Your task to perform on an android device: toggle airplane mode Image 0: 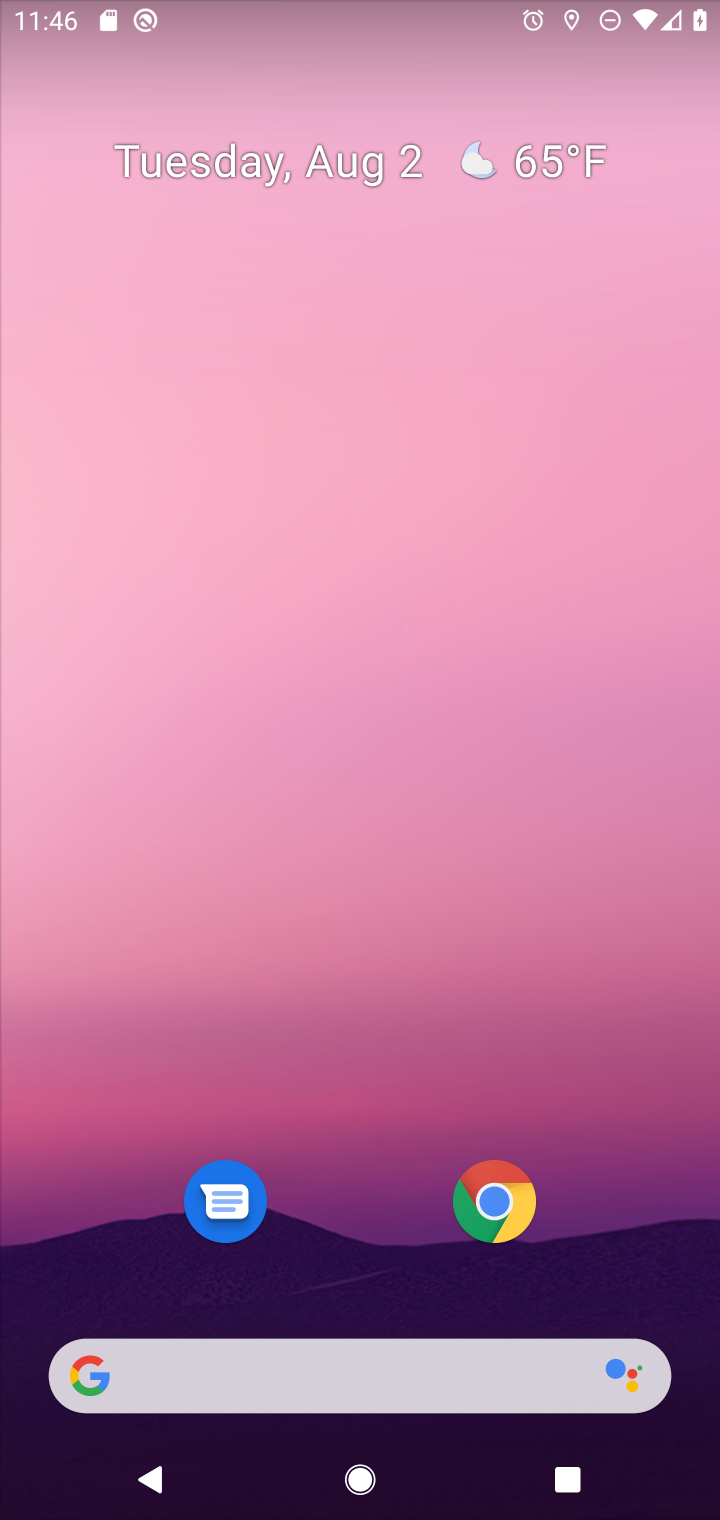
Step 0: press back button
Your task to perform on an android device: toggle airplane mode Image 1: 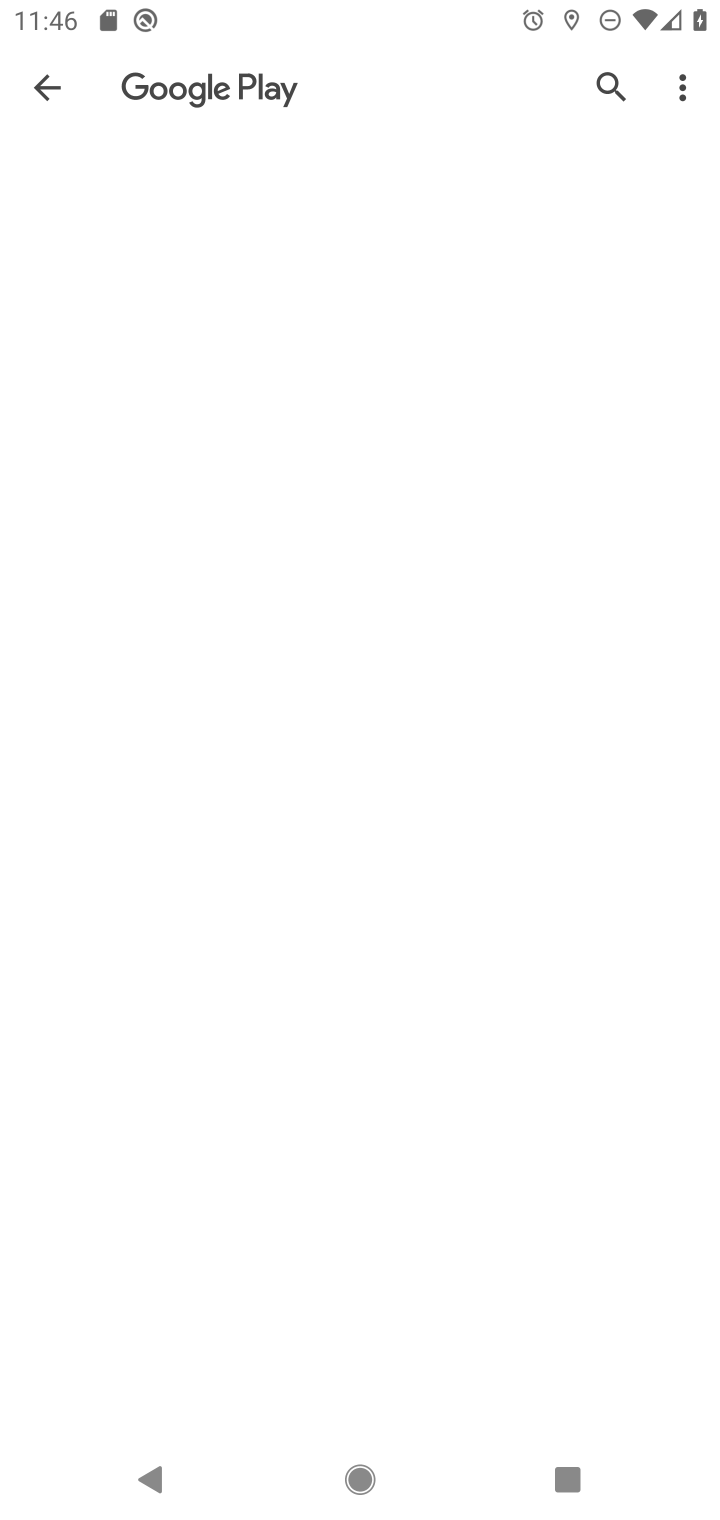
Step 1: drag from (303, 1354) to (223, 166)
Your task to perform on an android device: toggle airplane mode Image 2: 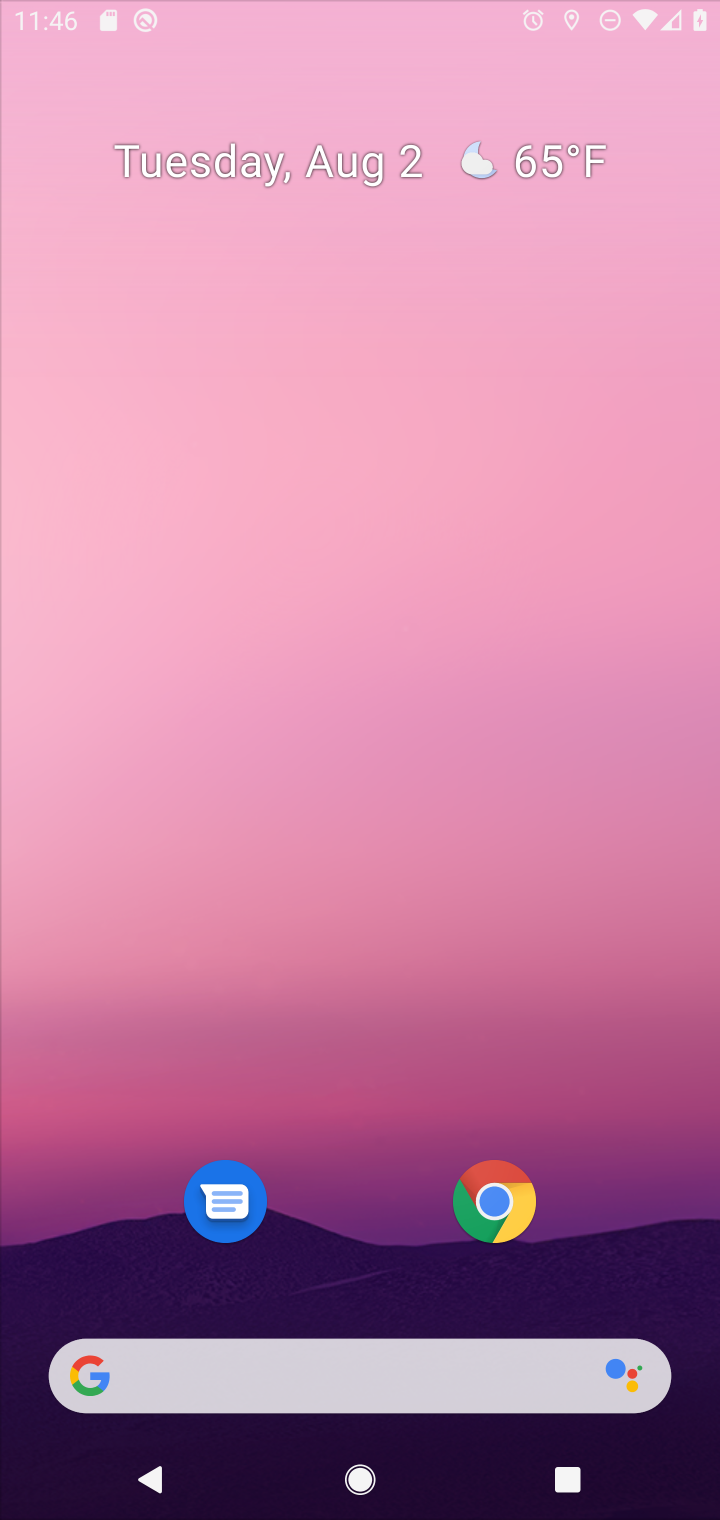
Step 2: press back button
Your task to perform on an android device: toggle airplane mode Image 3: 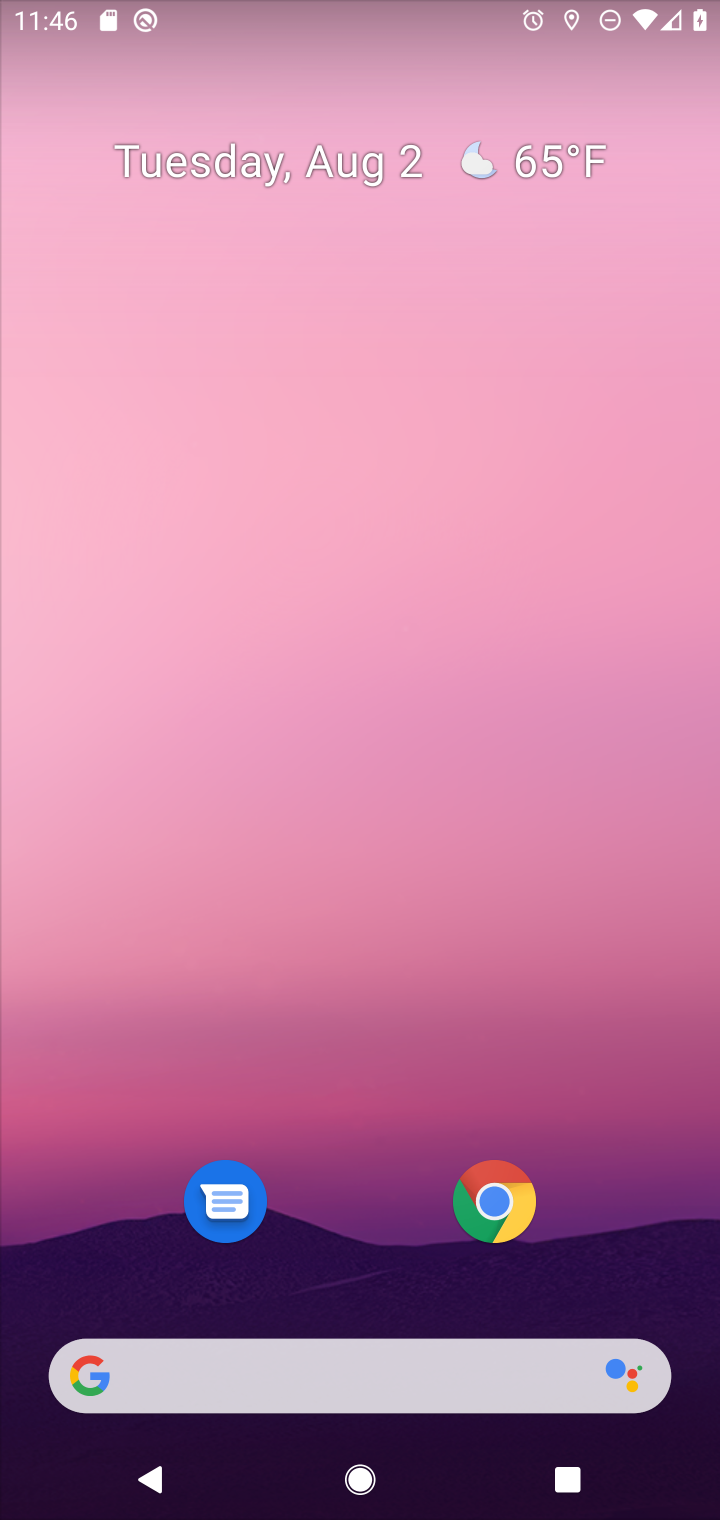
Step 3: drag from (408, 1240) to (498, 185)
Your task to perform on an android device: toggle airplane mode Image 4: 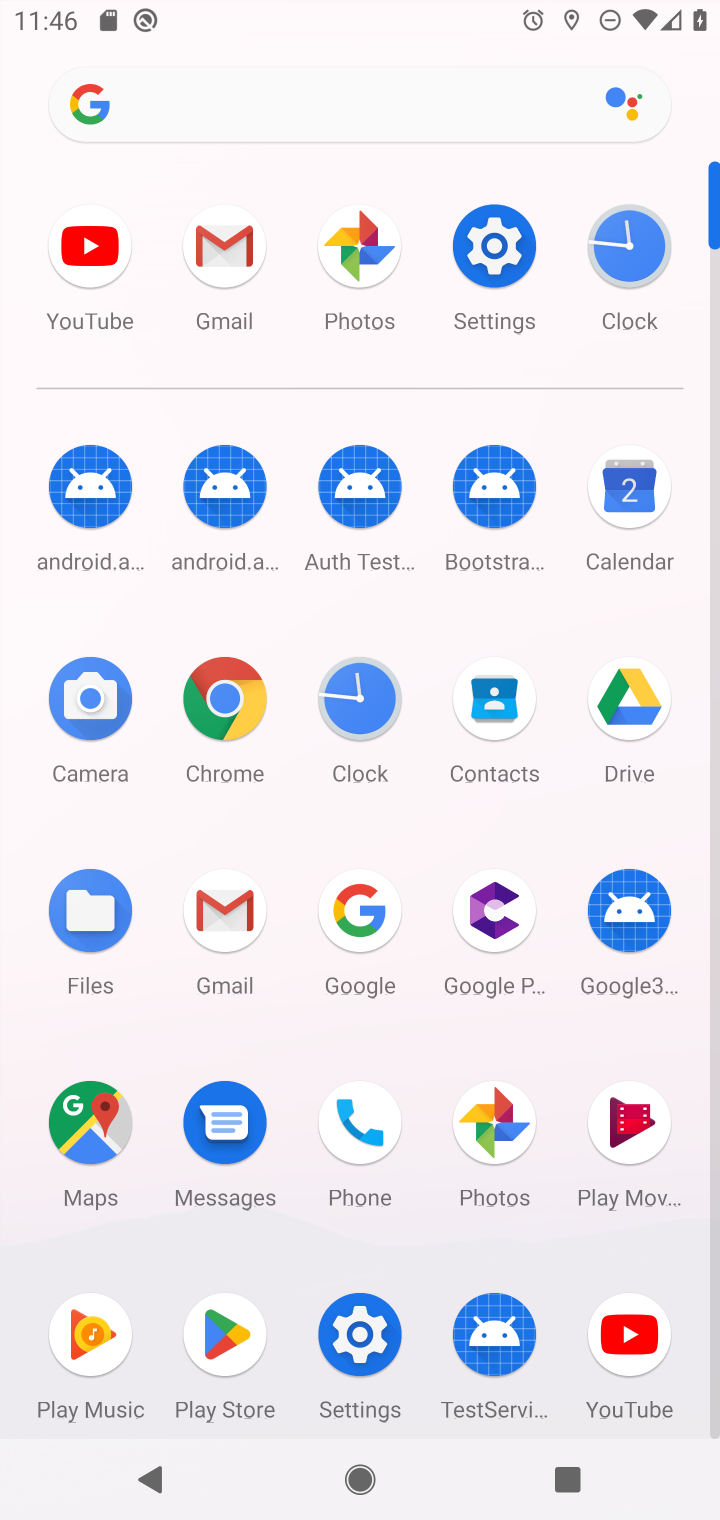
Step 4: click (531, 247)
Your task to perform on an android device: toggle airplane mode Image 5: 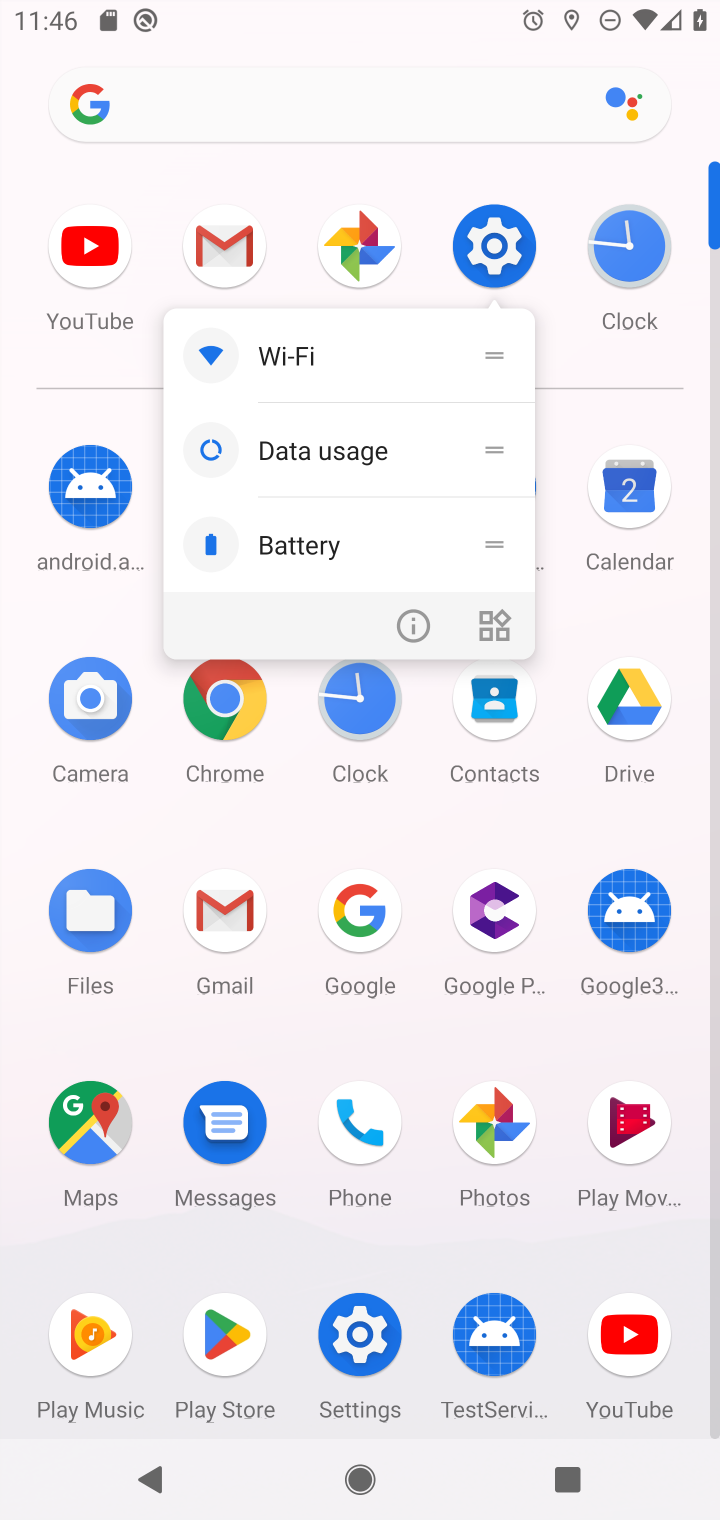
Step 5: click (497, 265)
Your task to perform on an android device: toggle airplane mode Image 6: 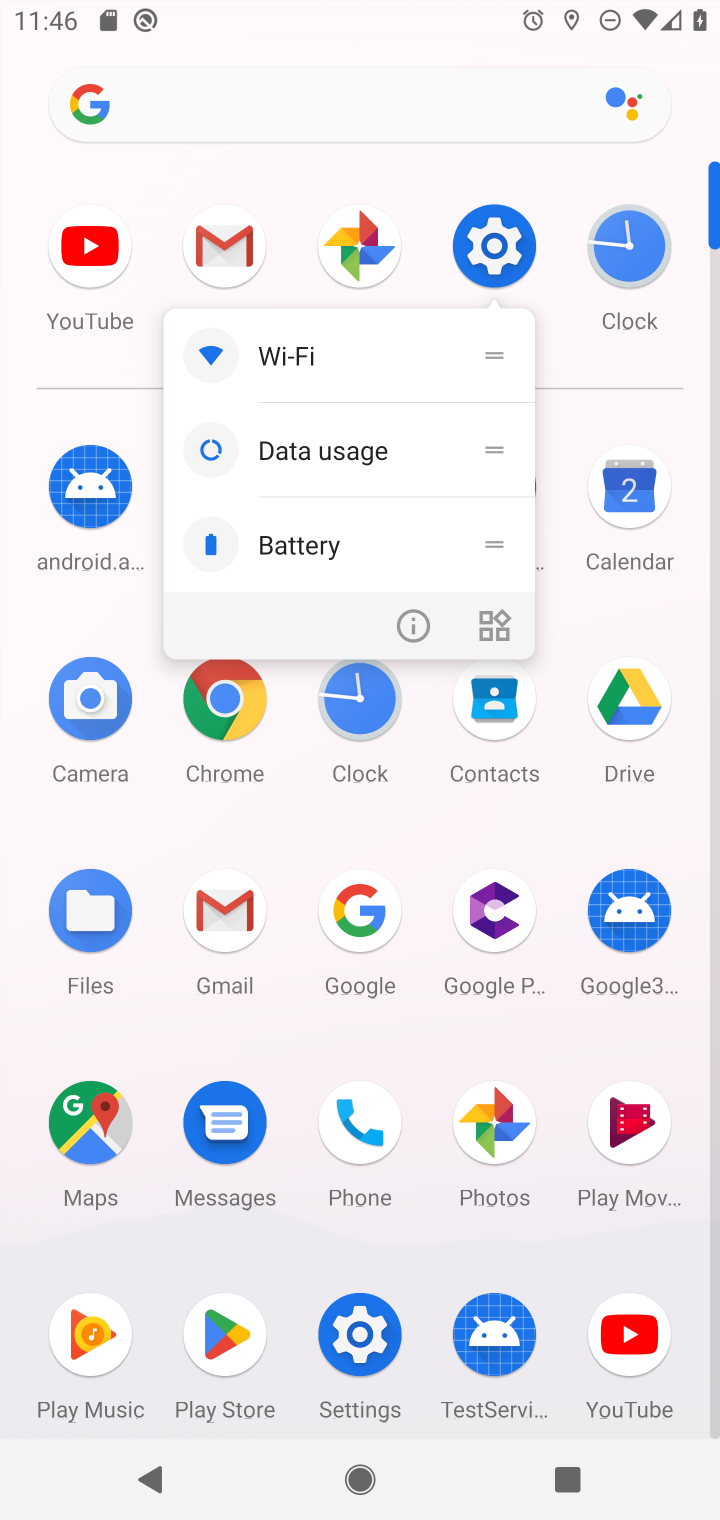
Step 6: click (499, 256)
Your task to perform on an android device: toggle airplane mode Image 7: 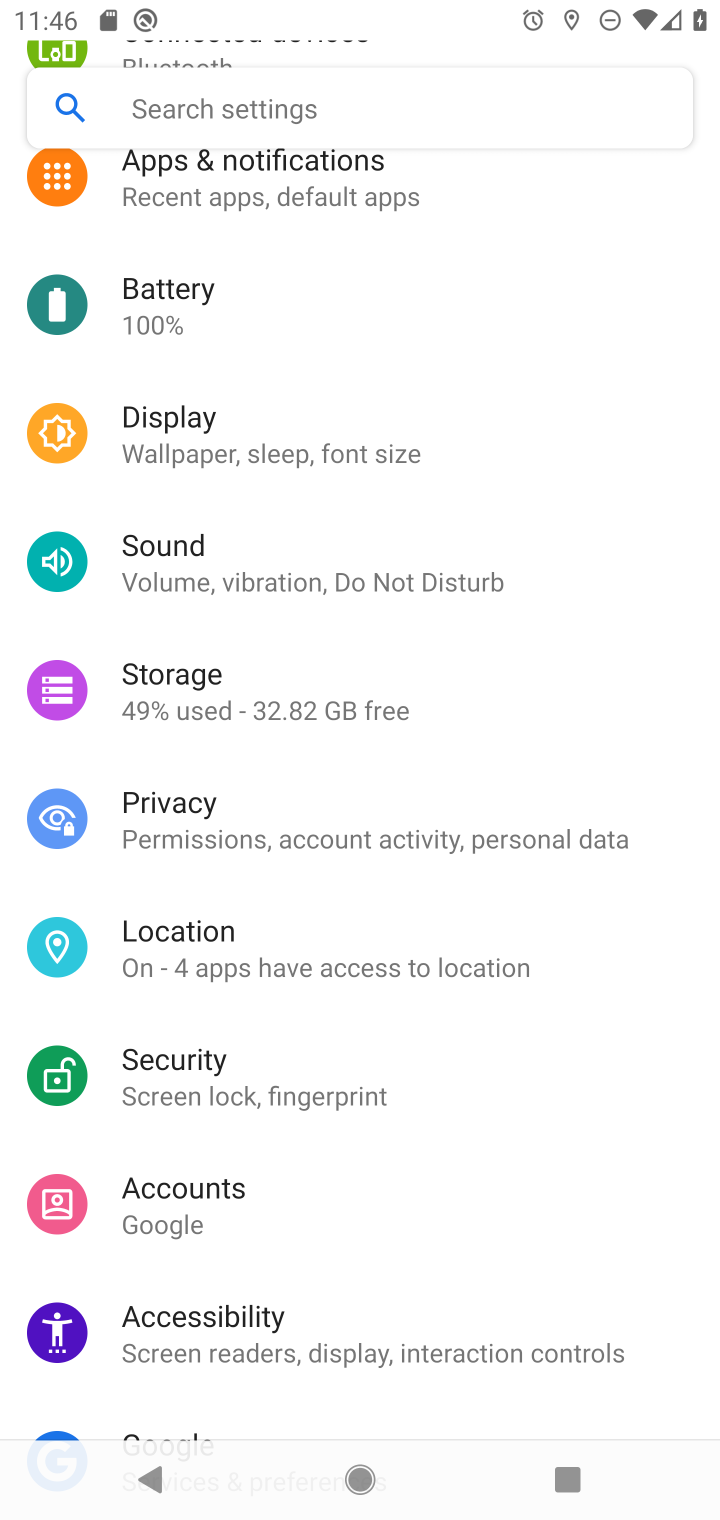
Step 7: drag from (290, 240) to (186, 1084)
Your task to perform on an android device: toggle airplane mode Image 8: 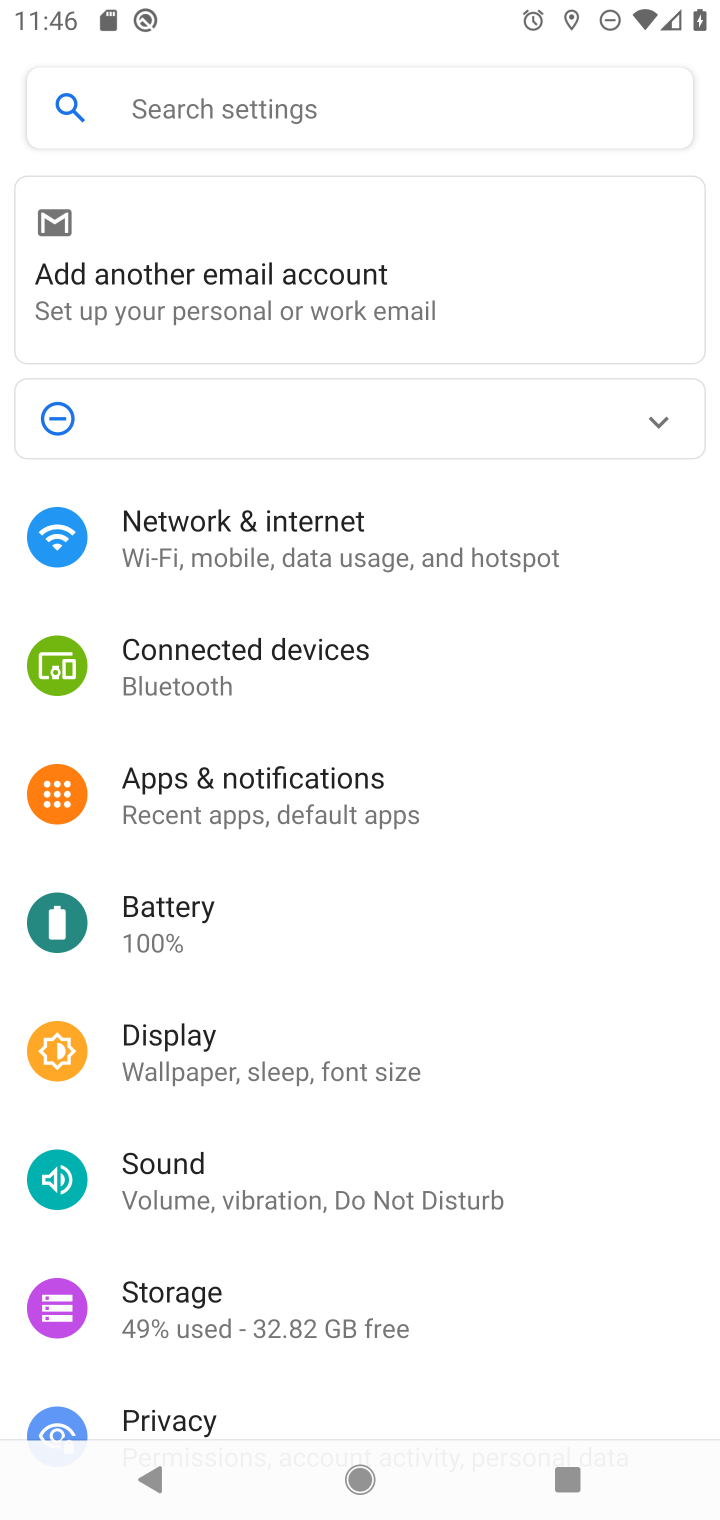
Step 8: click (258, 529)
Your task to perform on an android device: toggle airplane mode Image 9: 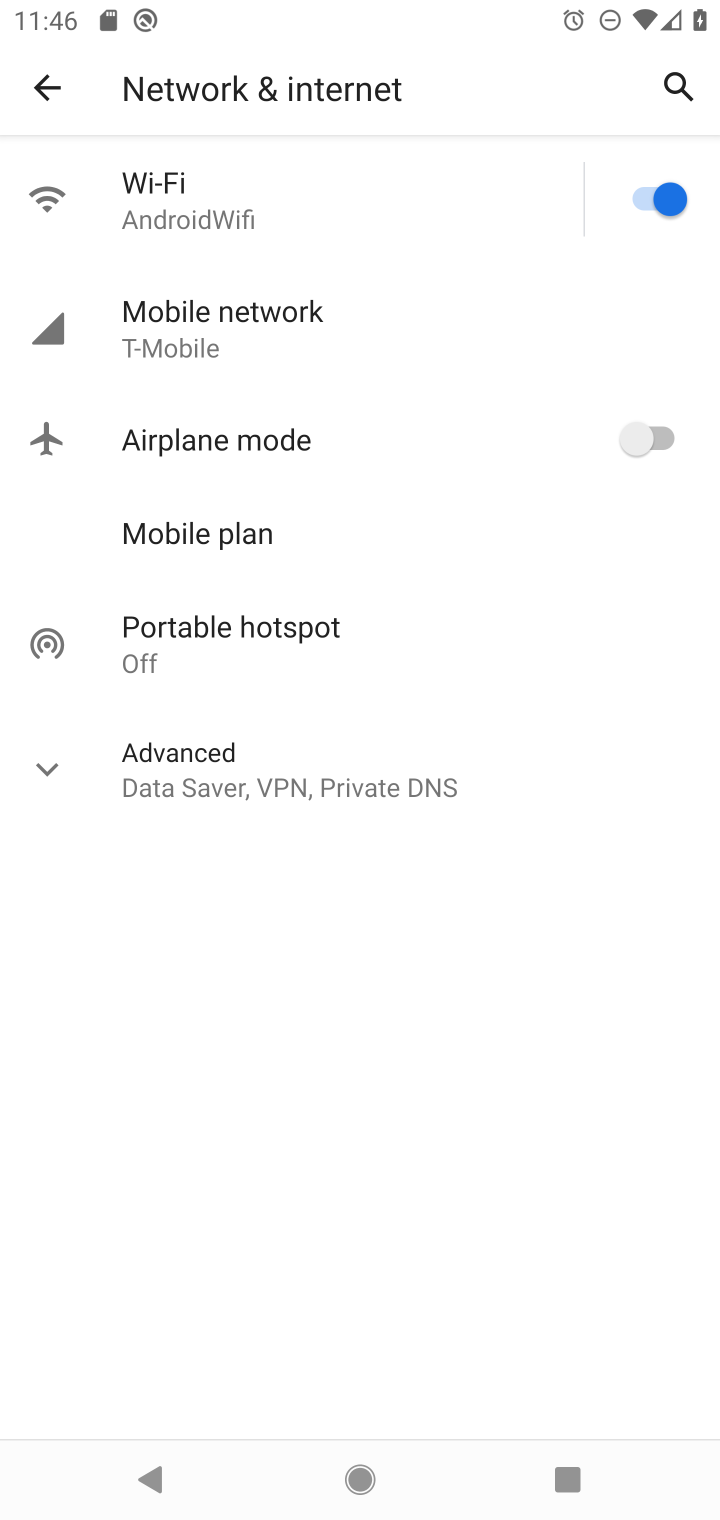
Step 9: click (648, 409)
Your task to perform on an android device: toggle airplane mode Image 10: 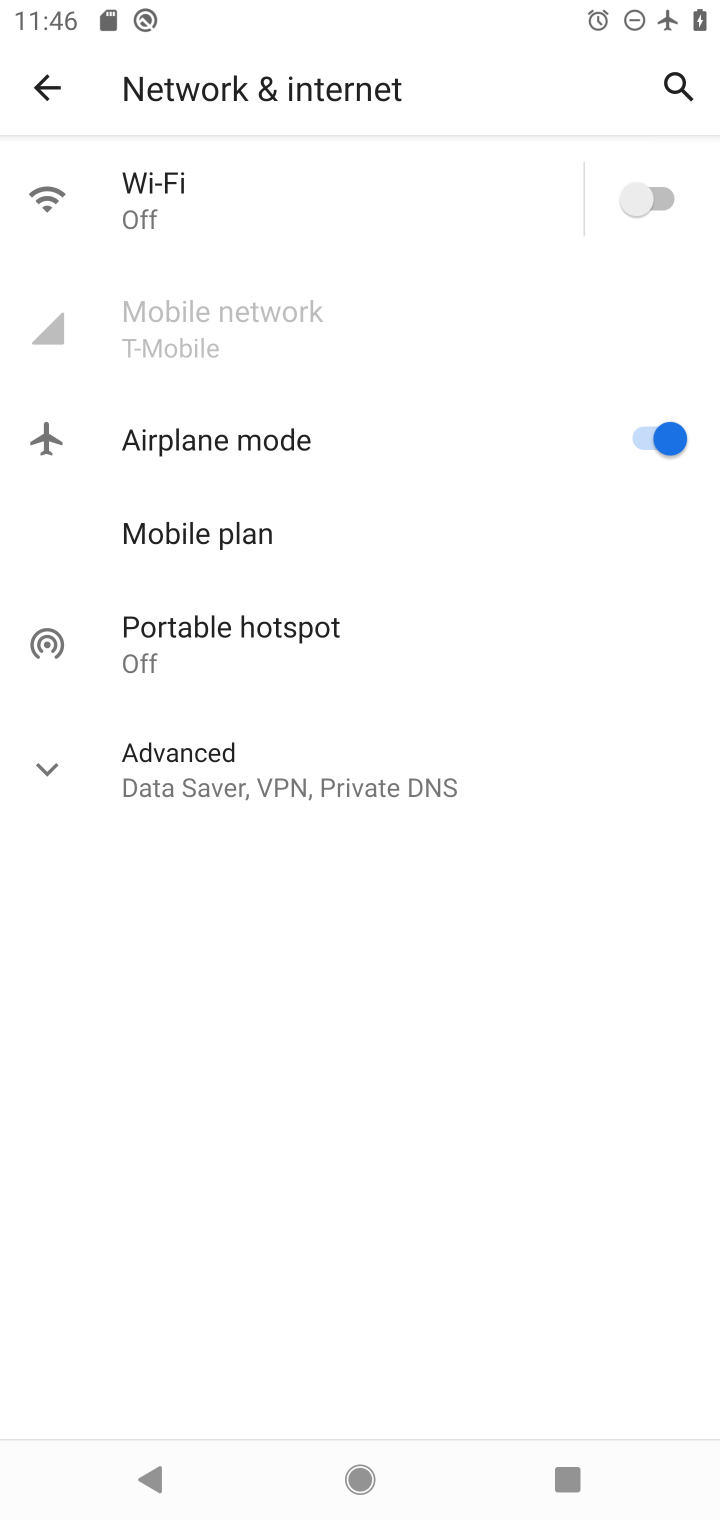
Step 10: task complete